Your task to perform on an android device: Go to Maps Image 0: 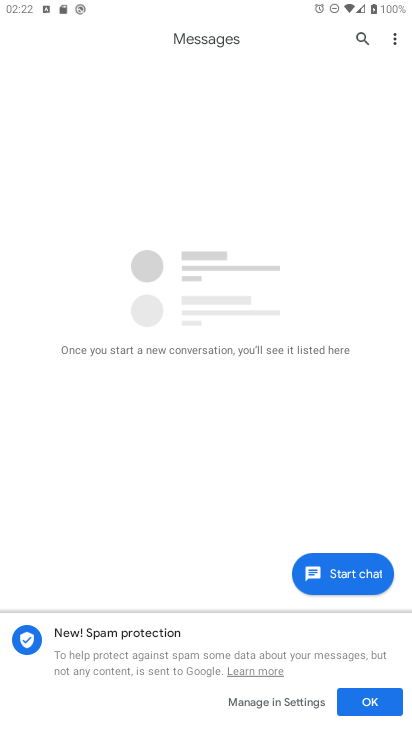
Step 0: press home button
Your task to perform on an android device: Go to Maps Image 1: 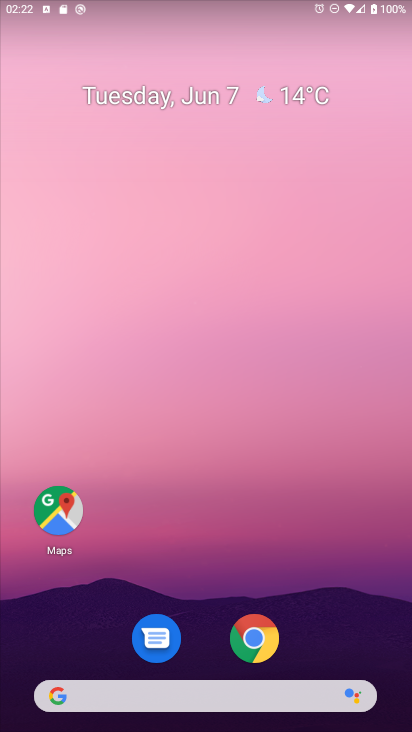
Step 1: drag from (232, 718) to (231, 184)
Your task to perform on an android device: Go to Maps Image 2: 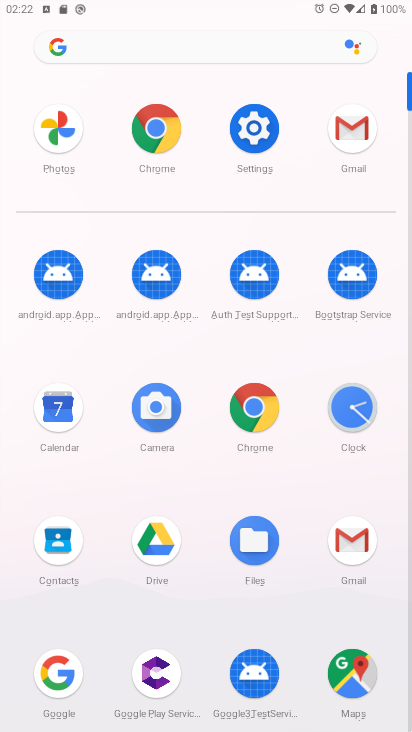
Step 2: click (353, 666)
Your task to perform on an android device: Go to Maps Image 3: 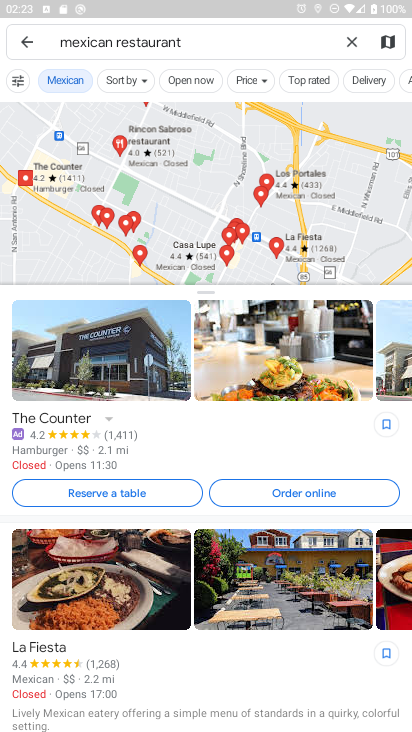
Step 3: task complete